Your task to perform on an android device: Go to ESPN.com Image 0: 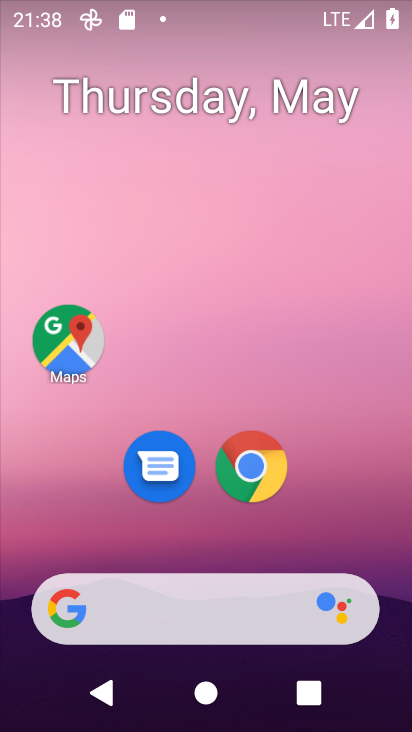
Step 0: click (259, 599)
Your task to perform on an android device: Go to ESPN.com Image 1: 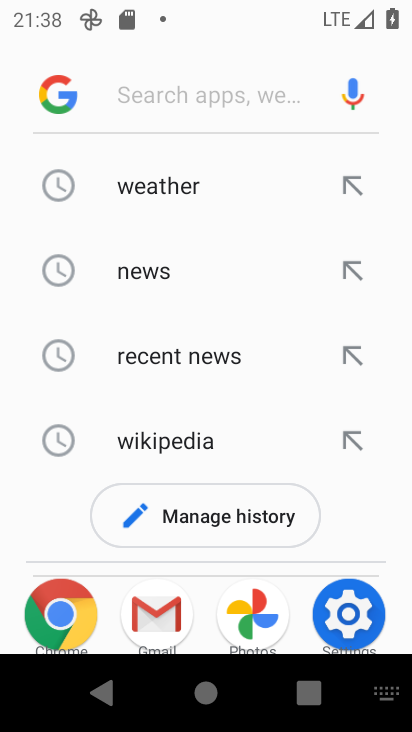
Step 1: type "espn.com"
Your task to perform on an android device: Go to ESPN.com Image 2: 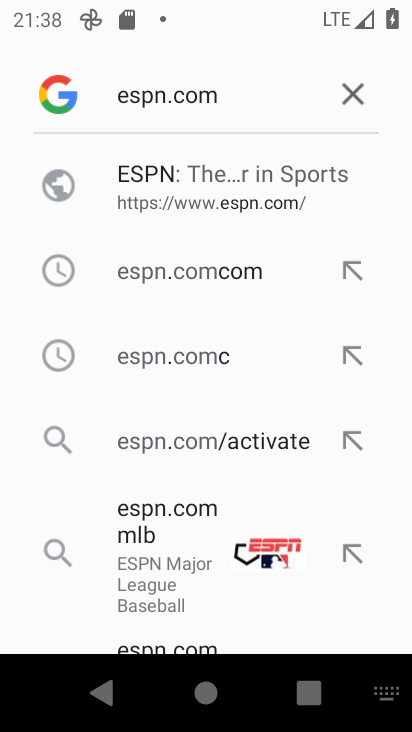
Step 2: click (170, 206)
Your task to perform on an android device: Go to ESPN.com Image 3: 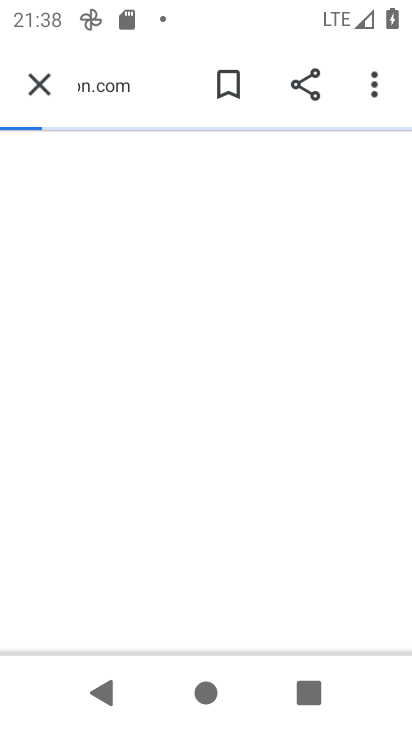
Step 3: task complete